Your task to perform on an android device: remove spam from my inbox in the gmail app Image 0: 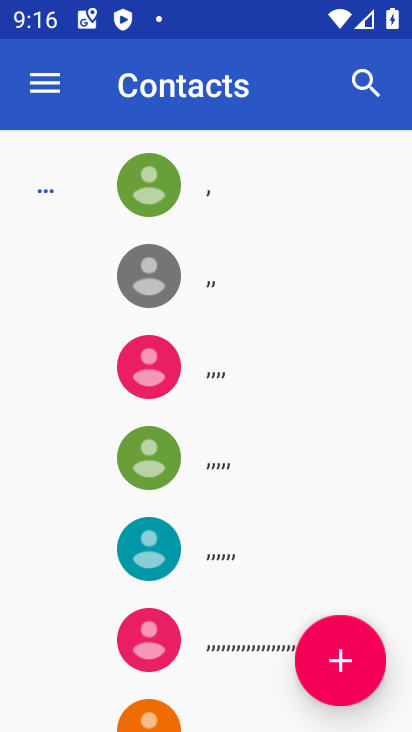
Step 0: press home button
Your task to perform on an android device: remove spam from my inbox in the gmail app Image 1: 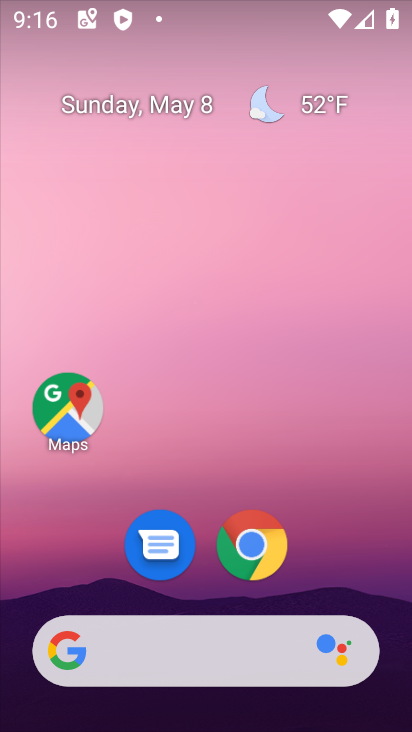
Step 1: drag from (226, 609) to (300, 17)
Your task to perform on an android device: remove spam from my inbox in the gmail app Image 2: 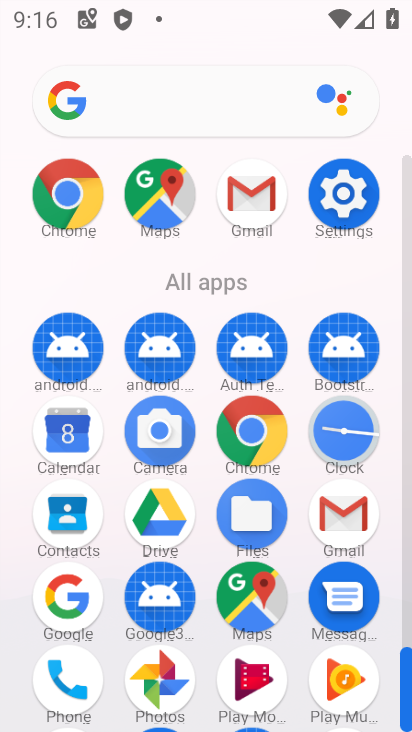
Step 2: click (336, 530)
Your task to perform on an android device: remove spam from my inbox in the gmail app Image 3: 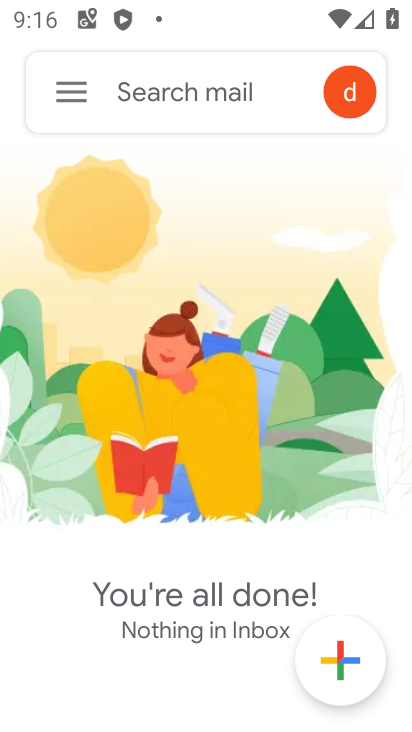
Step 3: click (63, 96)
Your task to perform on an android device: remove spam from my inbox in the gmail app Image 4: 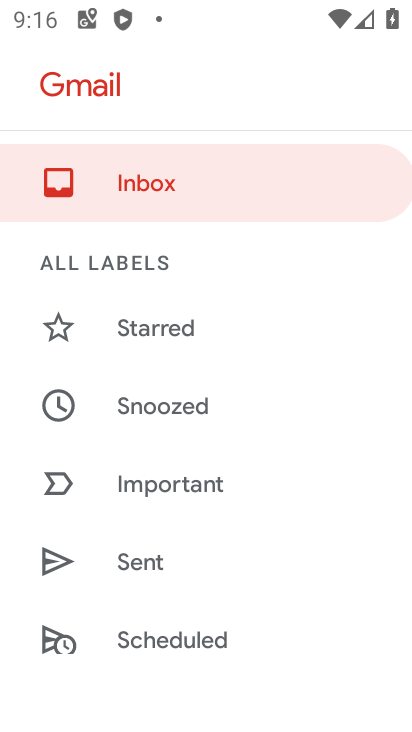
Step 4: drag from (151, 590) to (114, 212)
Your task to perform on an android device: remove spam from my inbox in the gmail app Image 5: 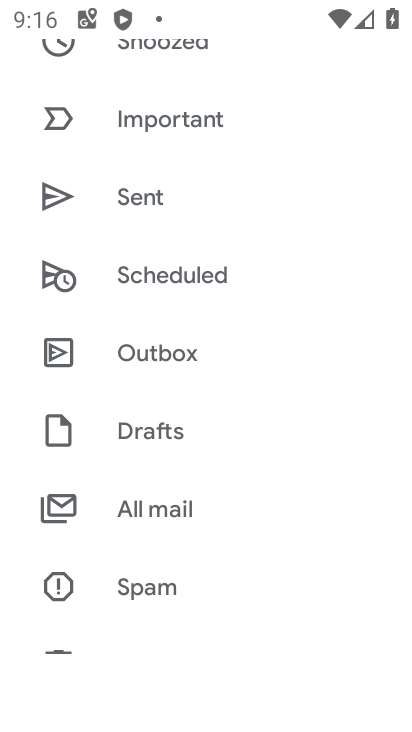
Step 5: click (161, 598)
Your task to perform on an android device: remove spam from my inbox in the gmail app Image 6: 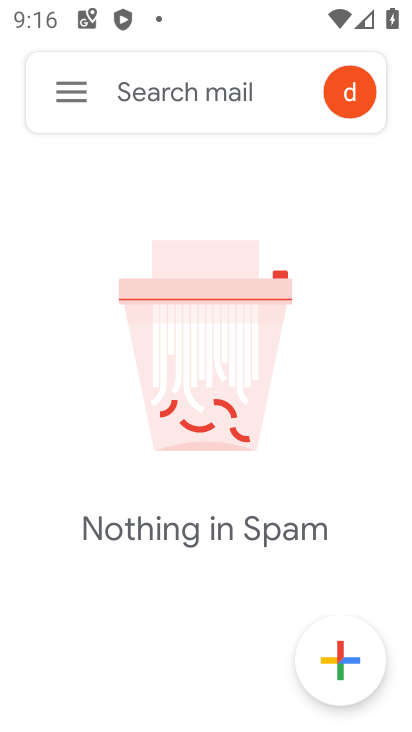
Step 6: task complete